Your task to perform on an android device: snooze an email in the gmail app Image 0: 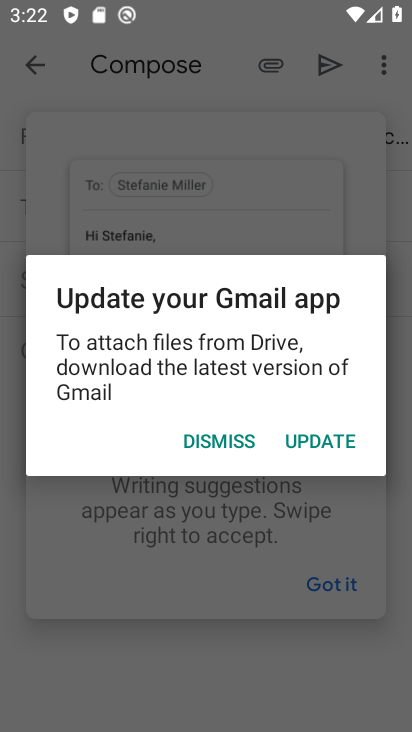
Step 0: press home button
Your task to perform on an android device: snooze an email in the gmail app Image 1: 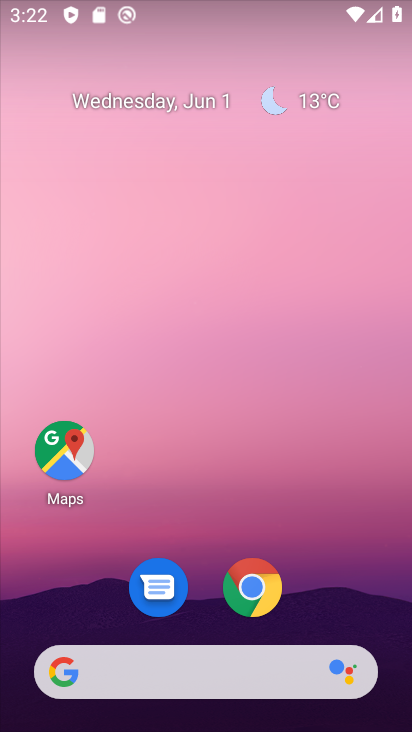
Step 1: drag from (299, 599) to (178, 0)
Your task to perform on an android device: snooze an email in the gmail app Image 2: 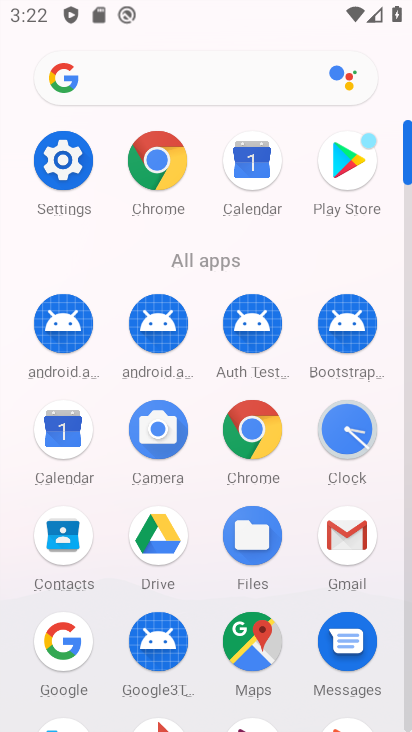
Step 2: drag from (0, 564) to (30, 199)
Your task to perform on an android device: snooze an email in the gmail app Image 3: 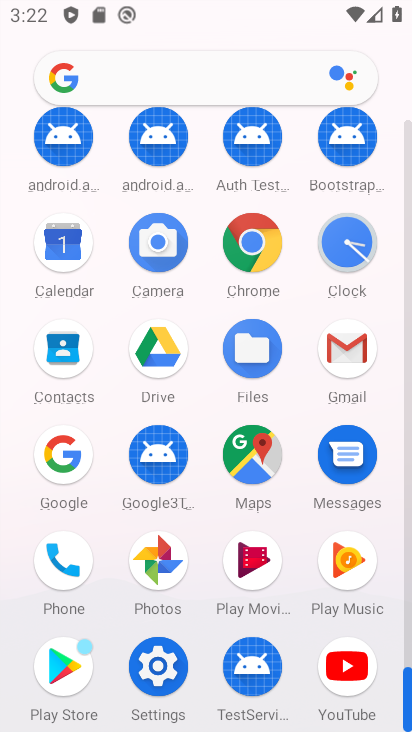
Step 3: click (348, 340)
Your task to perform on an android device: snooze an email in the gmail app Image 4: 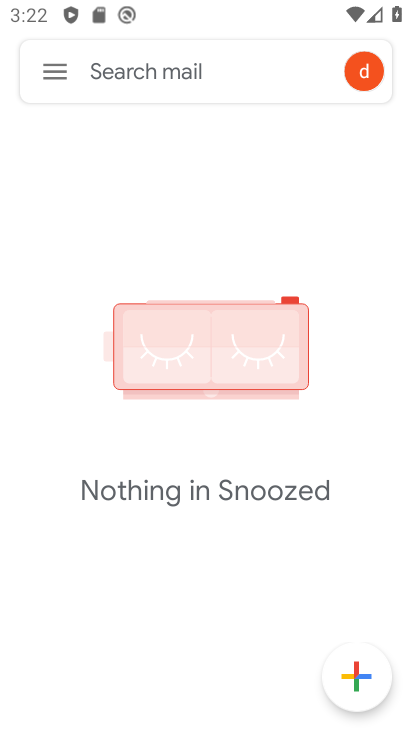
Step 4: click (45, 59)
Your task to perform on an android device: snooze an email in the gmail app Image 5: 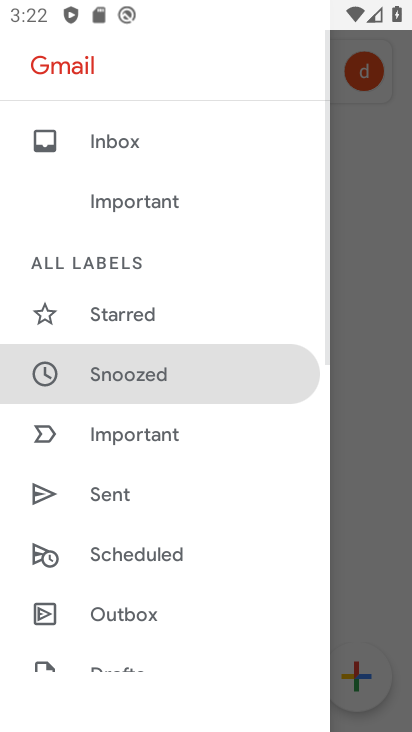
Step 5: click (136, 384)
Your task to perform on an android device: snooze an email in the gmail app Image 6: 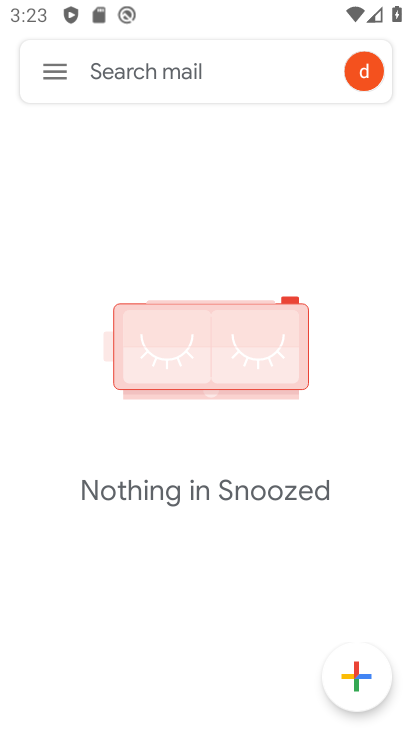
Step 6: task complete